Your task to perform on an android device: Search for the best rated circular saw on Lowes.com Image 0: 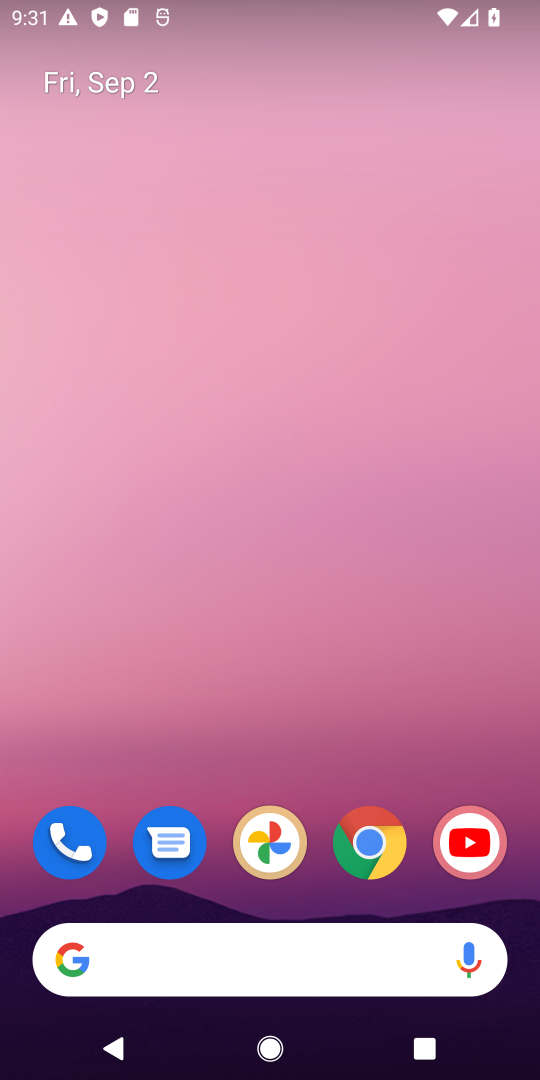
Step 0: drag from (263, 795) to (158, 146)
Your task to perform on an android device: Search for the best rated circular saw on Lowes.com Image 1: 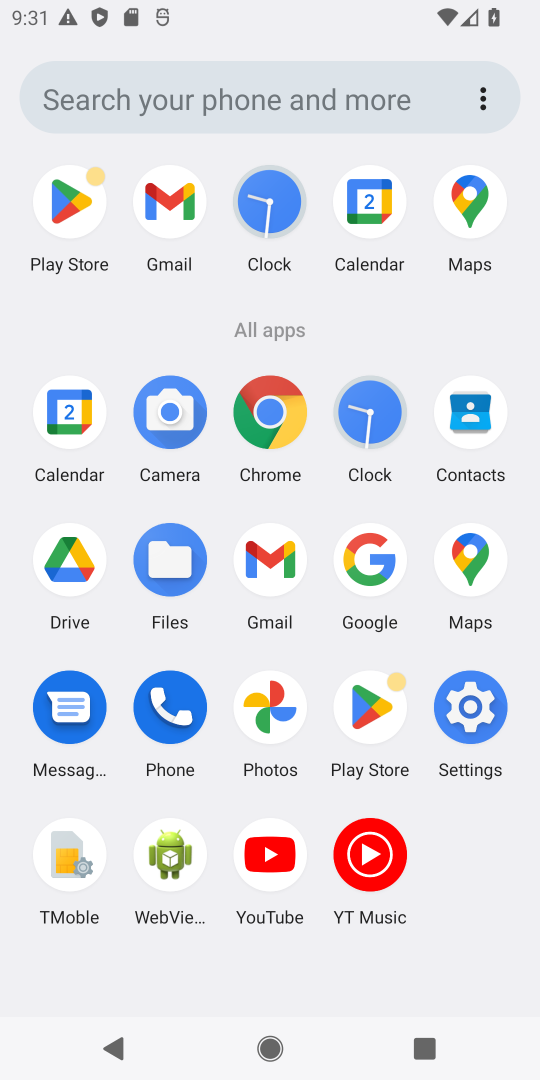
Step 1: click (271, 428)
Your task to perform on an android device: Search for the best rated circular saw on Lowes.com Image 2: 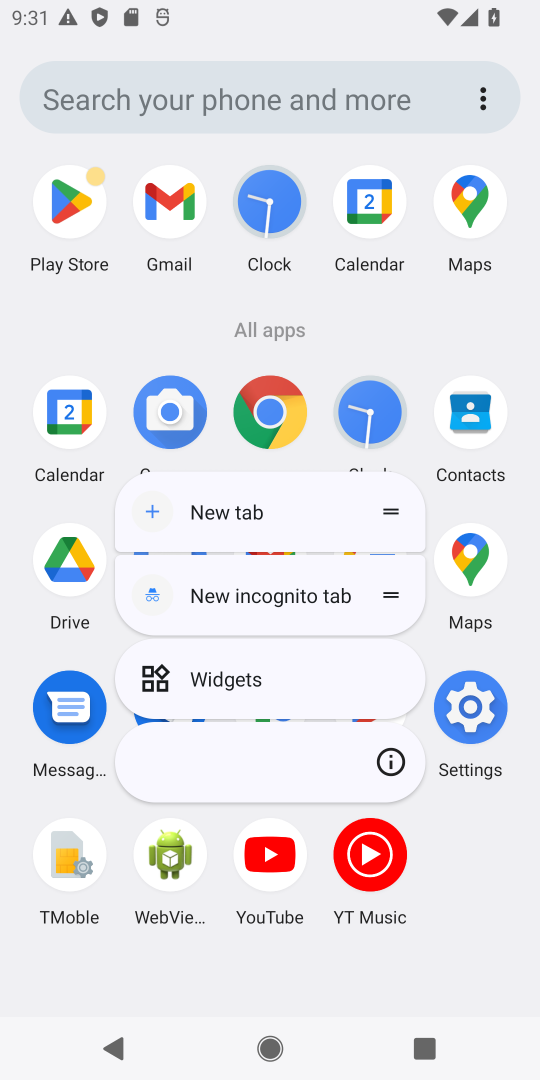
Step 2: click (294, 430)
Your task to perform on an android device: Search for the best rated circular saw on Lowes.com Image 3: 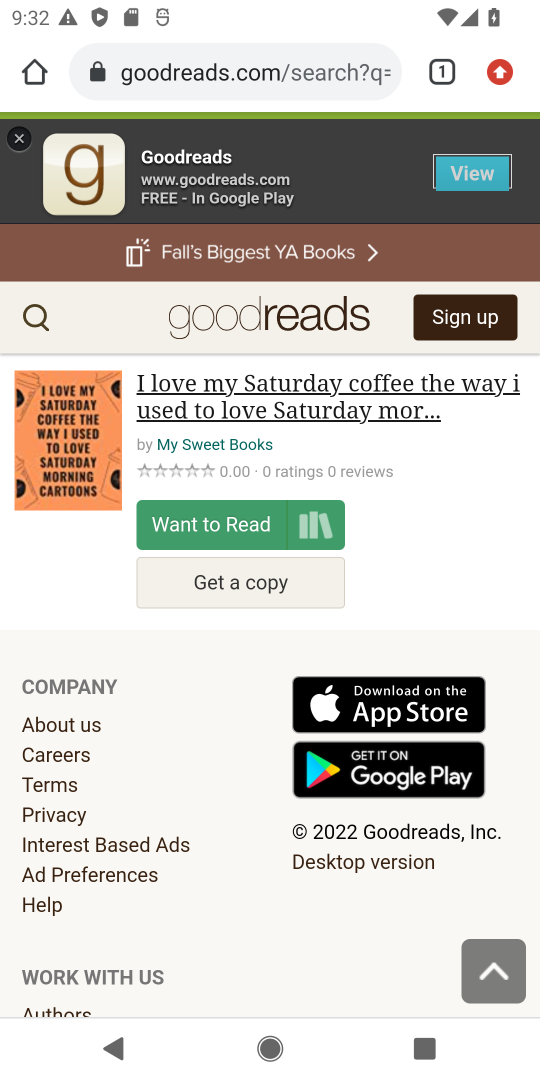
Step 3: click (167, 59)
Your task to perform on an android device: Search for the best rated circular saw on Lowes.com Image 4: 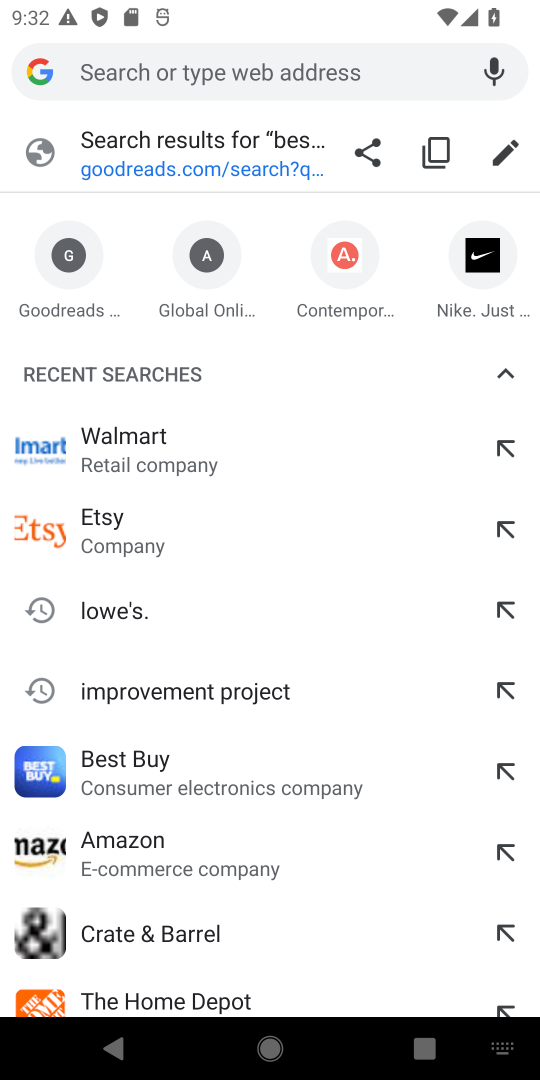
Step 4: type "Lowes.com"
Your task to perform on an android device: Search for the best rated circular saw on Lowes.com Image 5: 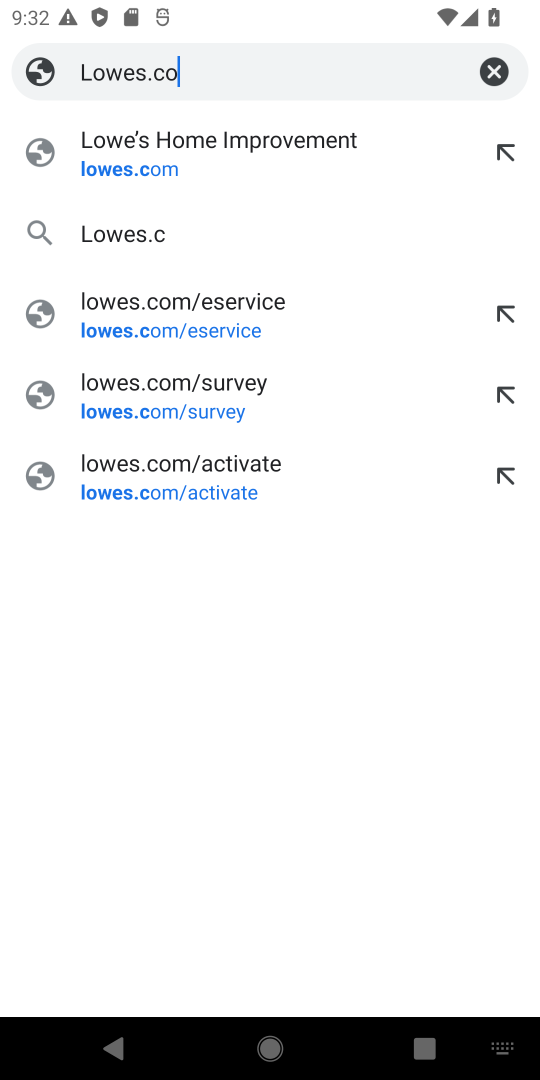
Step 5: press enter
Your task to perform on an android device: Search for the best rated circular saw on Lowes.com Image 6: 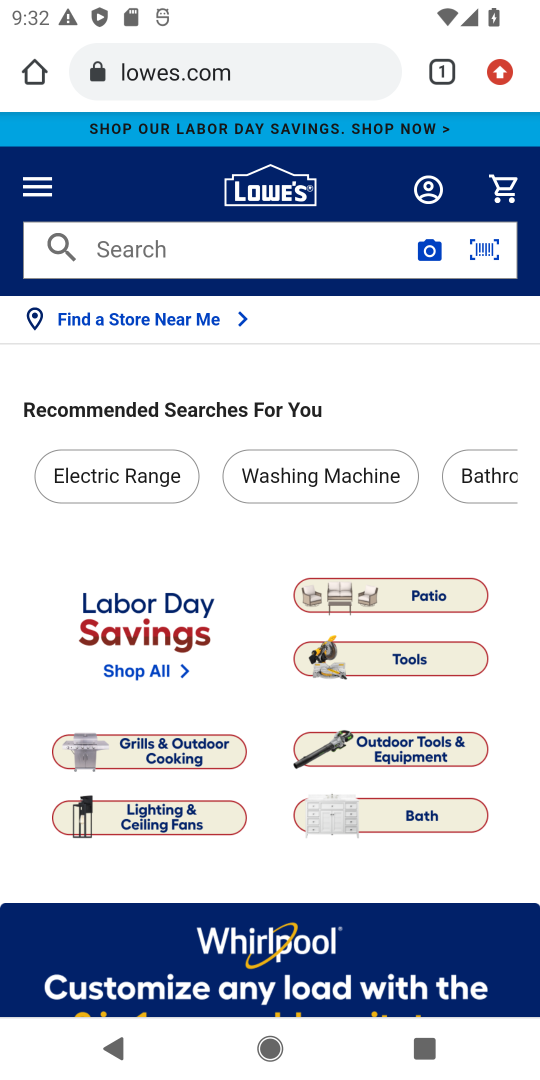
Step 6: click (239, 246)
Your task to perform on an android device: Search for the best rated circular saw on Lowes.com Image 7: 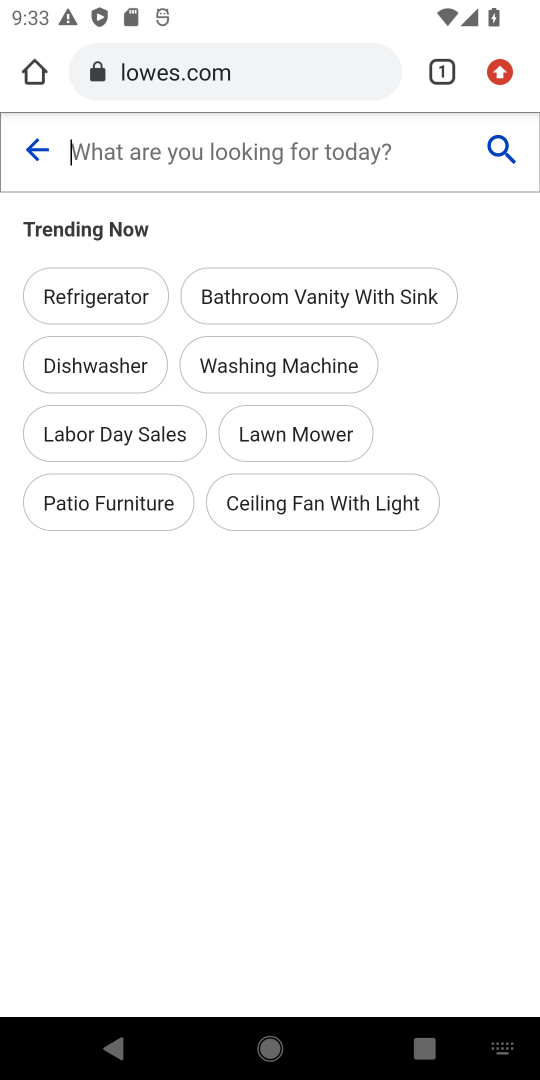
Step 7: press enter
Your task to perform on an android device: Search for the best rated circular saw on Lowes.com Image 8: 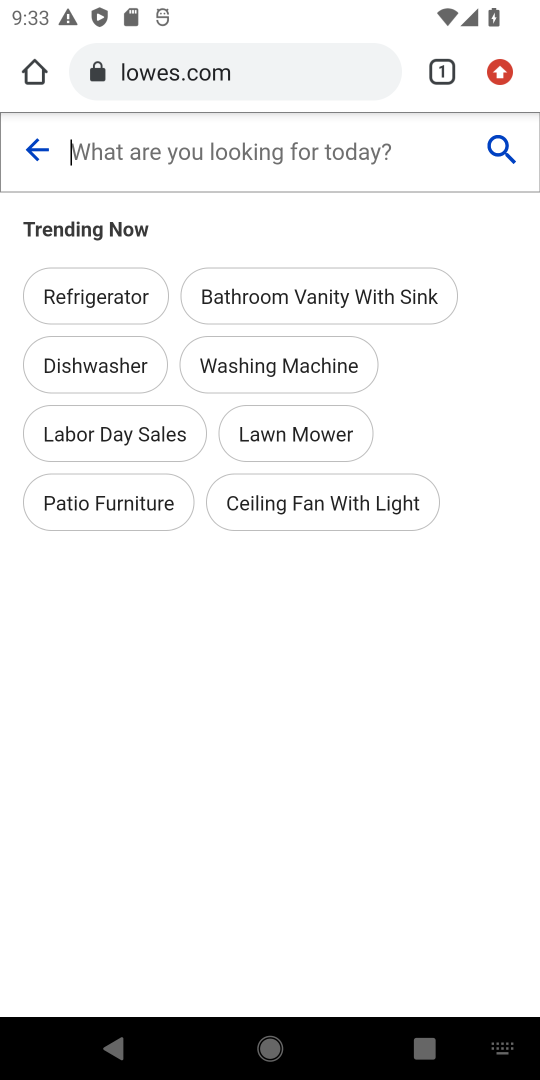
Step 8: type " best rated circular"
Your task to perform on an android device: Search for the best rated circular saw on Lowes.com Image 9: 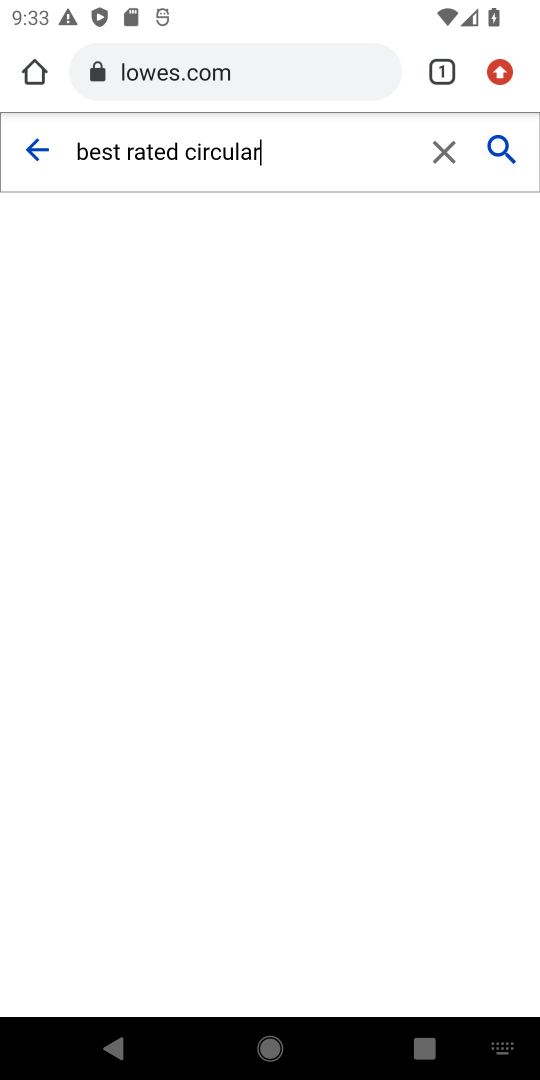
Step 9: press enter
Your task to perform on an android device: Search for the best rated circular saw on Lowes.com Image 10: 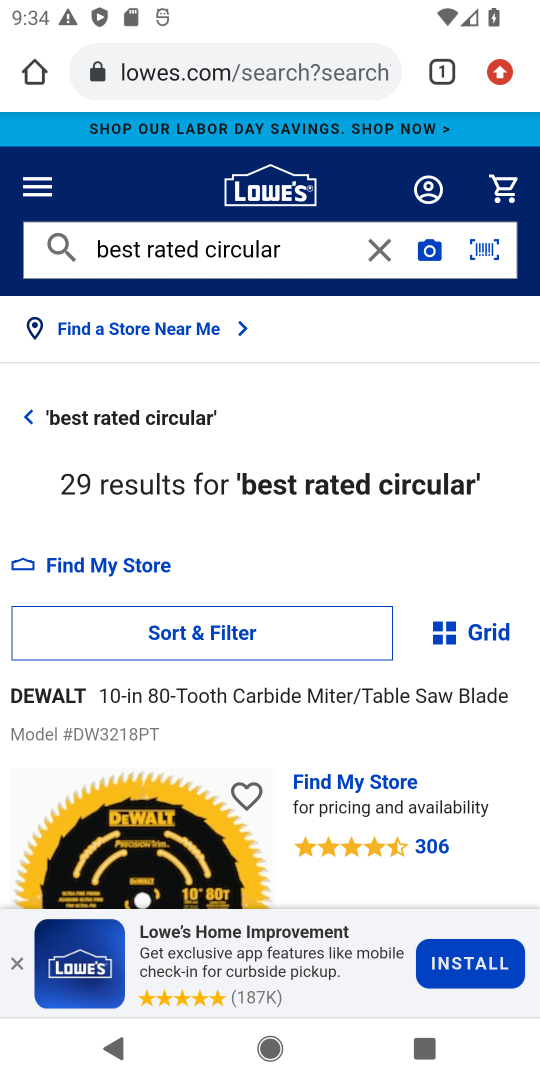
Step 10: task complete